Your task to perform on an android device: move an email to a new category in the gmail app Image 0: 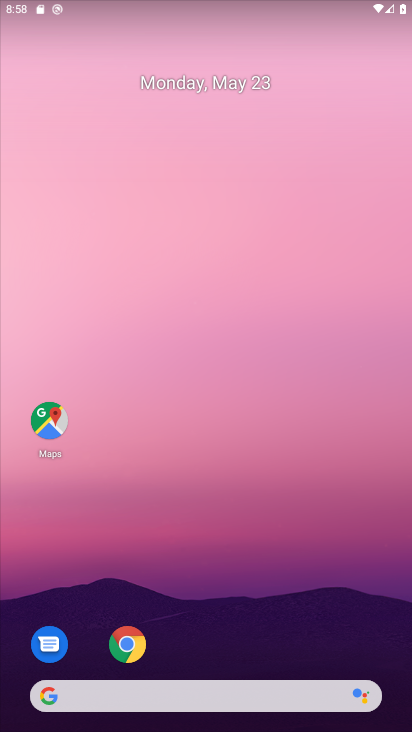
Step 0: drag from (389, 553) to (321, 110)
Your task to perform on an android device: move an email to a new category in the gmail app Image 1: 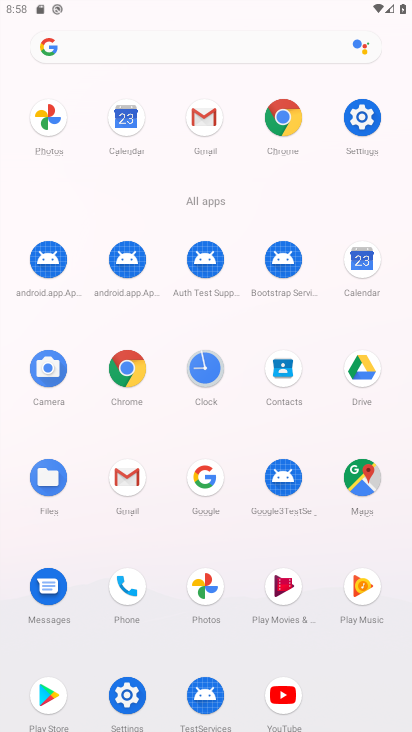
Step 1: click (123, 480)
Your task to perform on an android device: move an email to a new category in the gmail app Image 2: 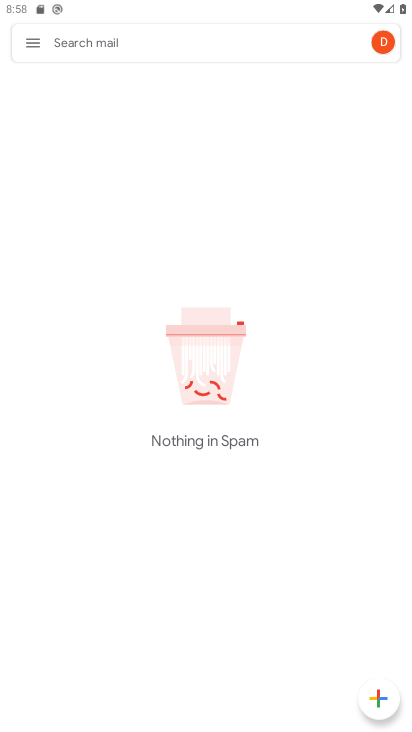
Step 2: click (31, 41)
Your task to perform on an android device: move an email to a new category in the gmail app Image 3: 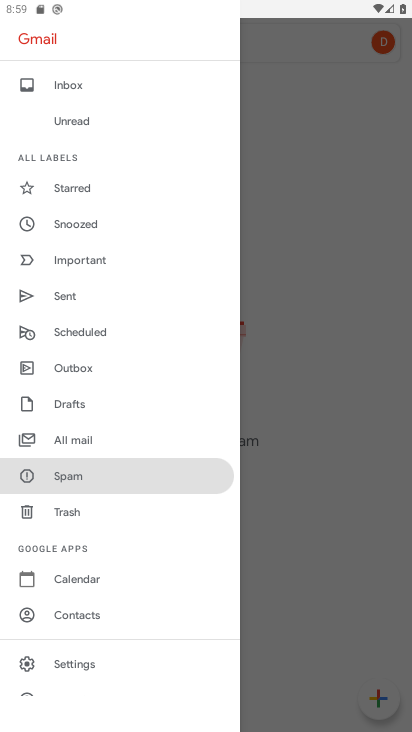
Step 3: drag from (145, 655) to (183, 339)
Your task to perform on an android device: move an email to a new category in the gmail app Image 4: 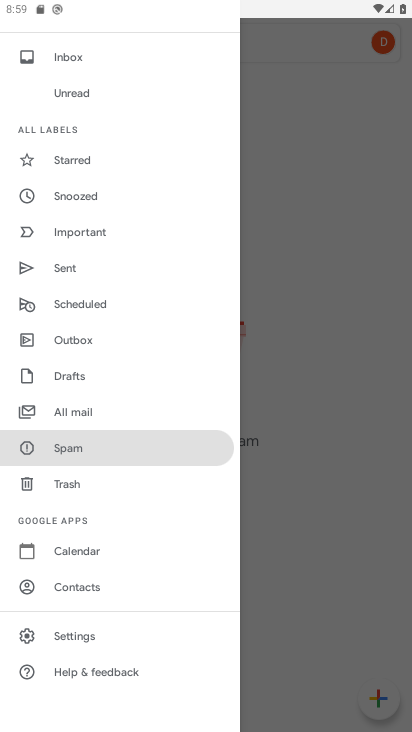
Step 4: click (96, 629)
Your task to perform on an android device: move an email to a new category in the gmail app Image 5: 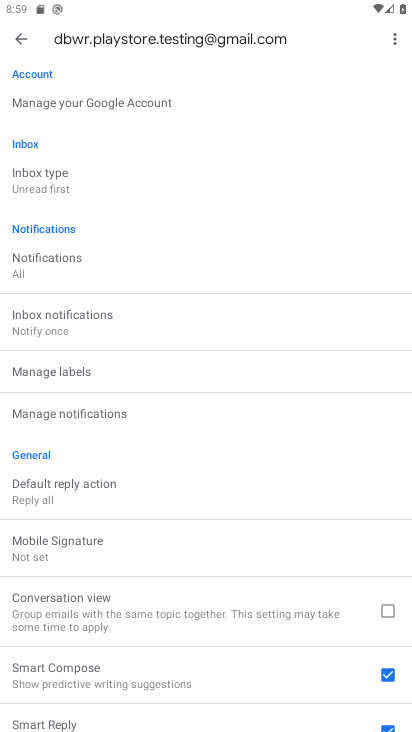
Step 5: drag from (269, 281) to (170, 592)
Your task to perform on an android device: move an email to a new category in the gmail app Image 6: 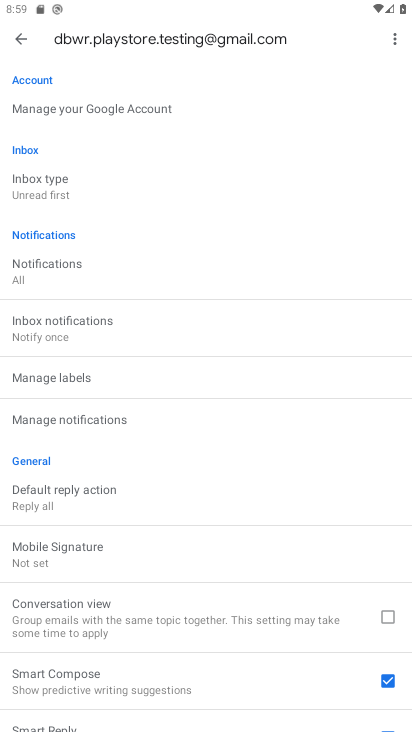
Step 6: click (24, 43)
Your task to perform on an android device: move an email to a new category in the gmail app Image 7: 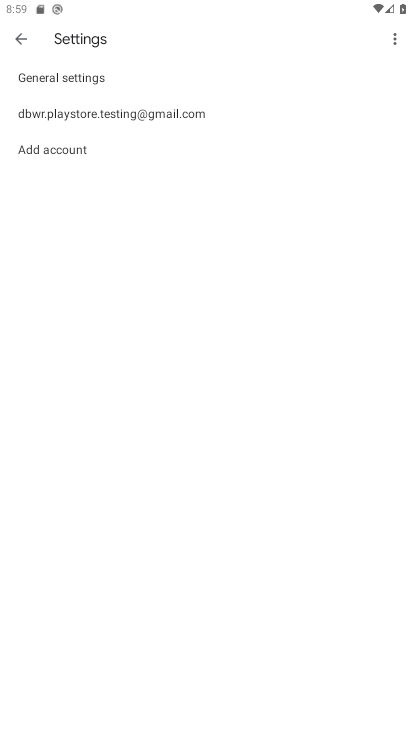
Step 7: click (16, 35)
Your task to perform on an android device: move an email to a new category in the gmail app Image 8: 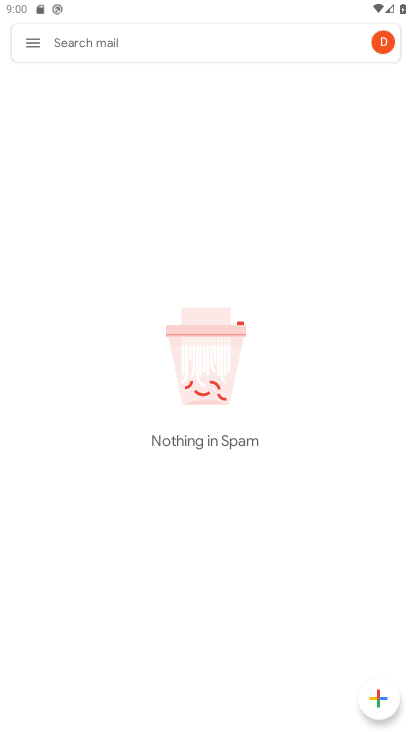
Step 8: click (37, 36)
Your task to perform on an android device: move an email to a new category in the gmail app Image 9: 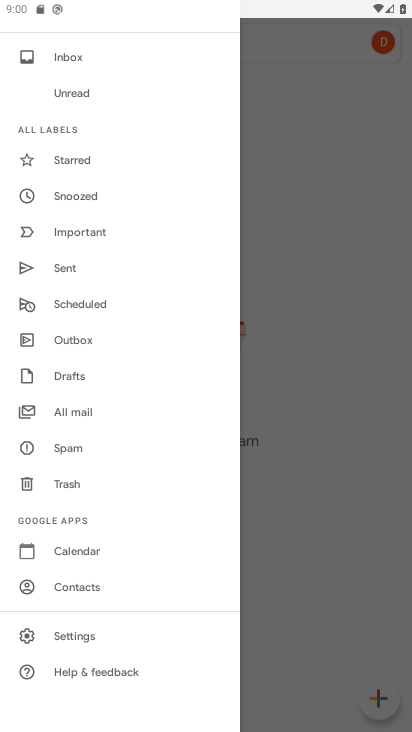
Step 9: click (85, 415)
Your task to perform on an android device: move an email to a new category in the gmail app Image 10: 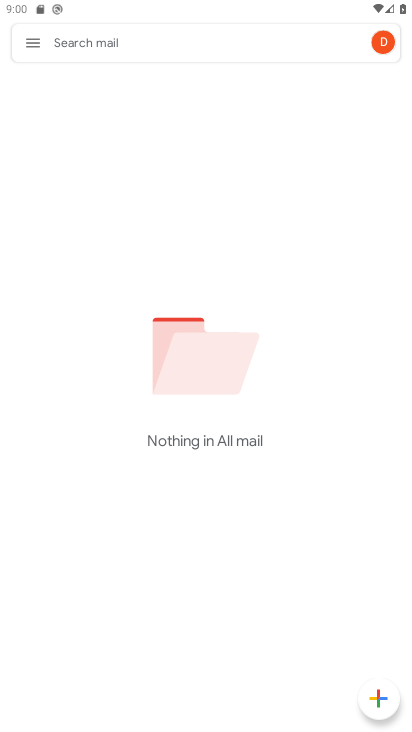
Step 10: task complete